Your task to perform on an android device: toggle airplane mode Image 0: 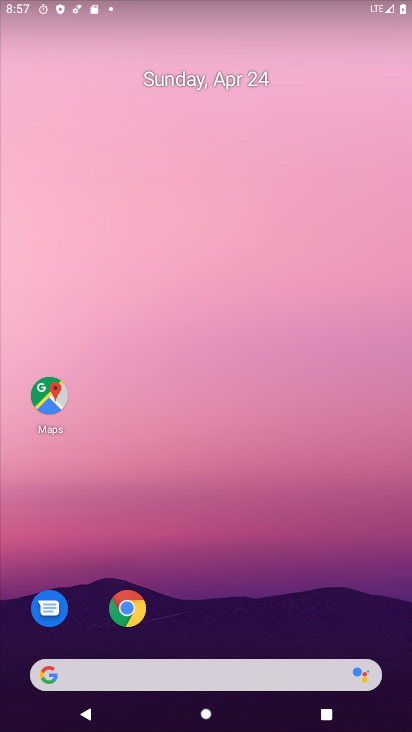
Step 0: drag from (330, 468) to (293, 57)
Your task to perform on an android device: toggle airplane mode Image 1: 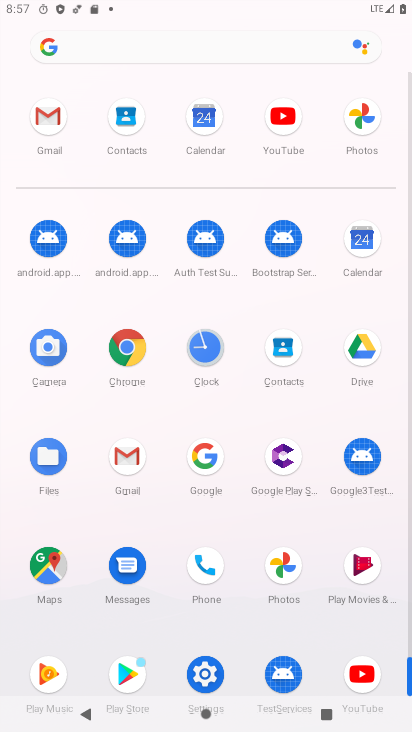
Step 1: click (208, 661)
Your task to perform on an android device: toggle airplane mode Image 2: 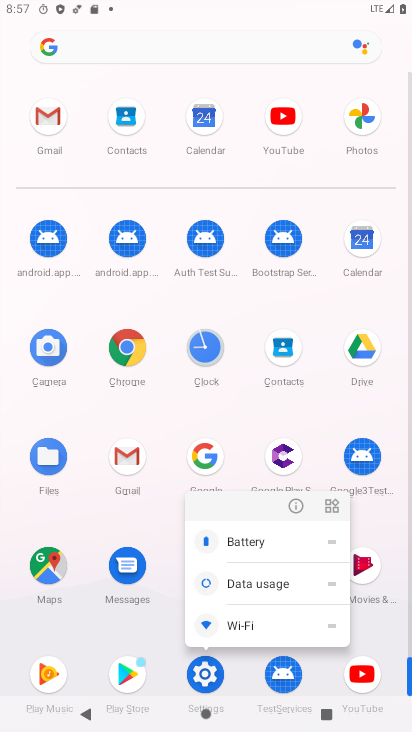
Step 2: click (208, 661)
Your task to perform on an android device: toggle airplane mode Image 3: 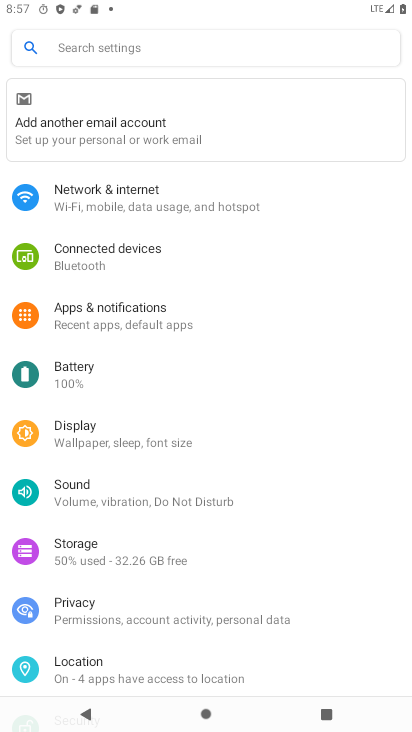
Step 3: click (210, 200)
Your task to perform on an android device: toggle airplane mode Image 4: 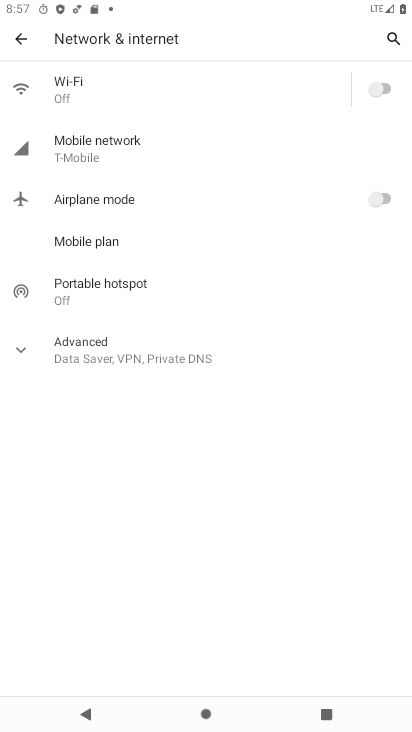
Step 4: click (210, 200)
Your task to perform on an android device: toggle airplane mode Image 5: 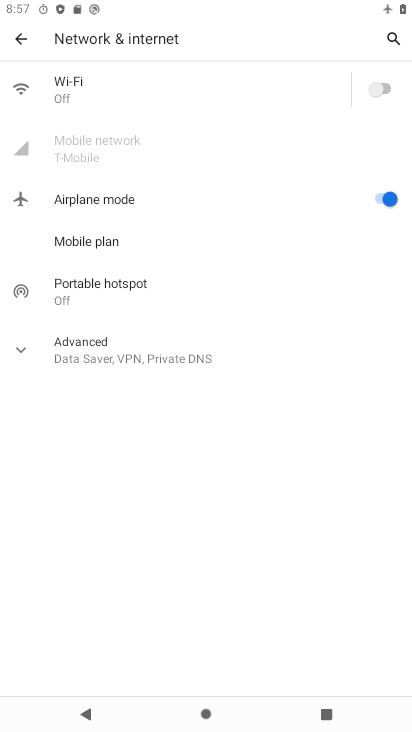
Step 5: task complete